Your task to perform on an android device: turn on improve location accuracy Image 0: 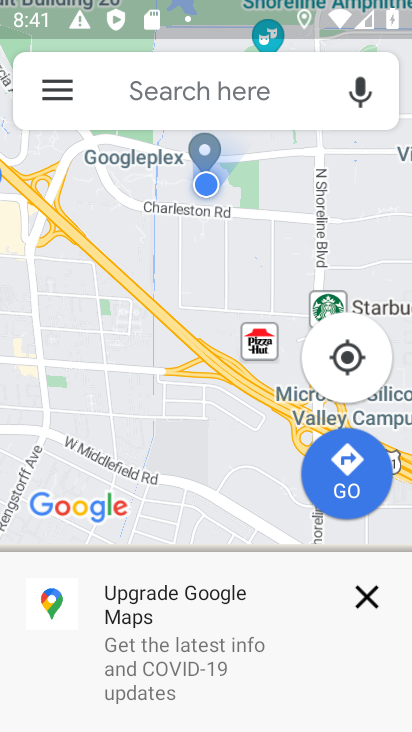
Step 0: press home button
Your task to perform on an android device: turn on improve location accuracy Image 1: 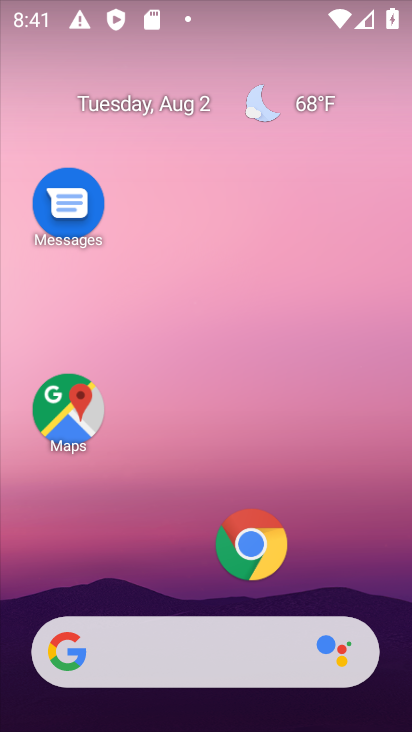
Step 1: drag from (229, 545) to (160, 221)
Your task to perform on an android device: turn on improve location accuracy Image 2: 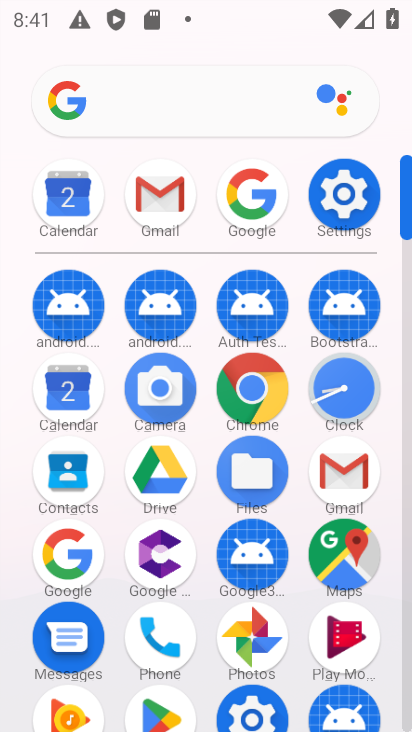
Step 2: click (336, 199)
Your task to perform on an android device: turn on improve location accuracy Image 3: 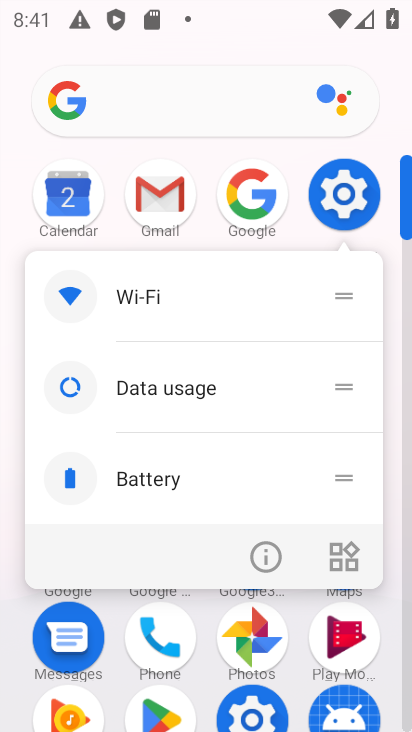
Step 3: click (340, 202)
Your task to perform on an android device: turn on improve location accuracy Image 4: 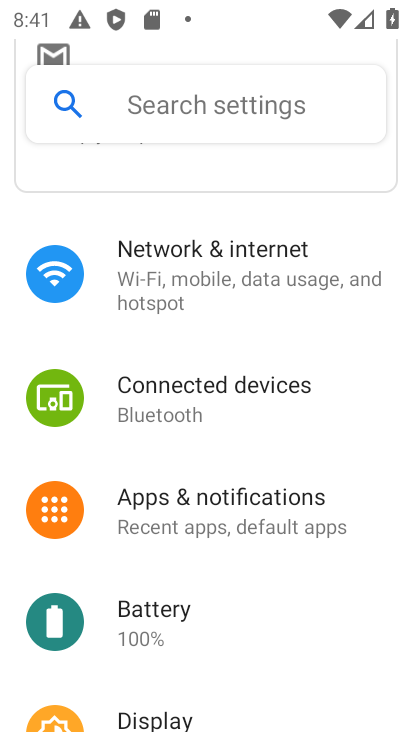
Step 4: drag from (167, 664) to (121, 267)
Your task to perform on an android device: turn on improve location accuracy Image 5: 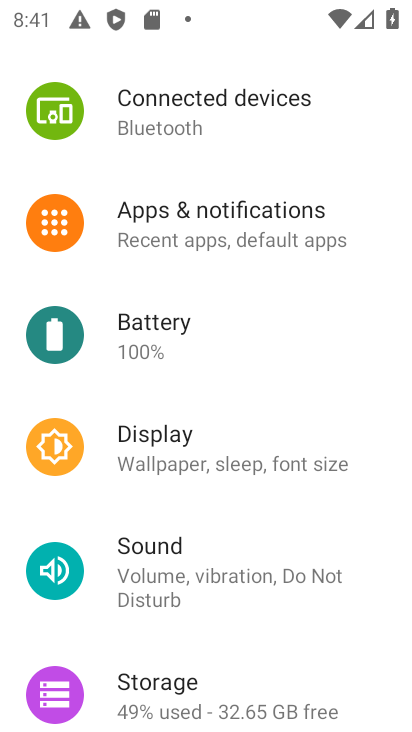
Step 5: drag from (218, 688) to (186, 328)
Your task to perform on an android device: turn on improve location accuracy Image 6: 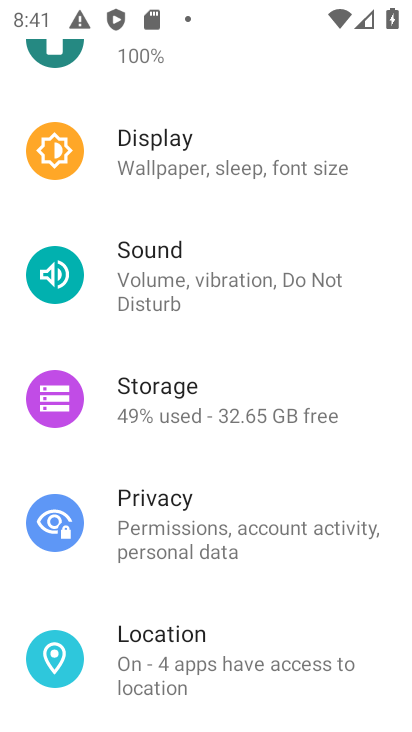
Step 6: click (168, 654)
Your task to perform on an android device: turn on improve location accuracy Image 7: 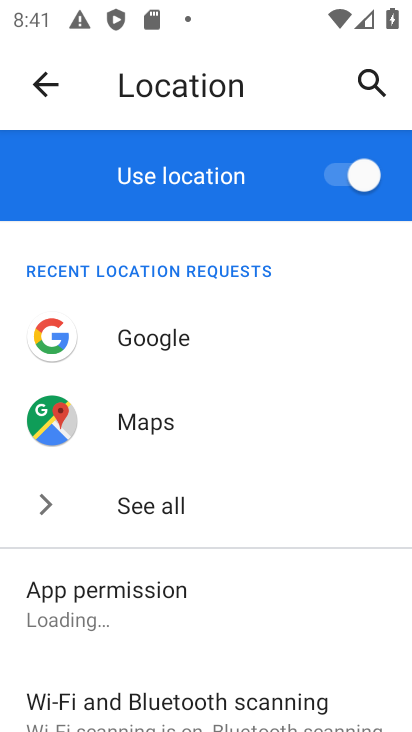
Step 7: drag from (111, 686) to (108, 265)
Your task to perform on an android device: turn on improve location accuracy Image 8: 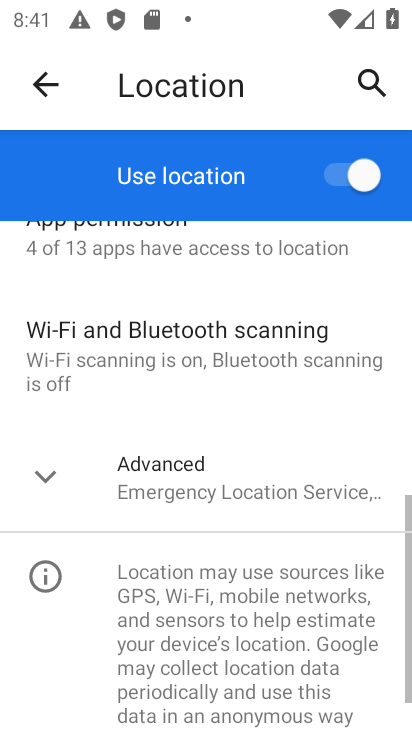
Step 8: click (151, 493)
Your task to perform on an android device: turn on improve location accuracy Image 9: 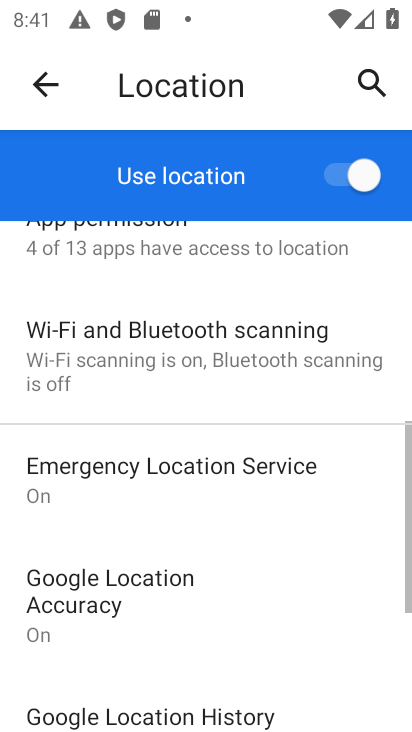
Step 9: drag from (174, 639) to (170, 213)
Your task to perform on an android device: turn on improve location accuracy Image 10: 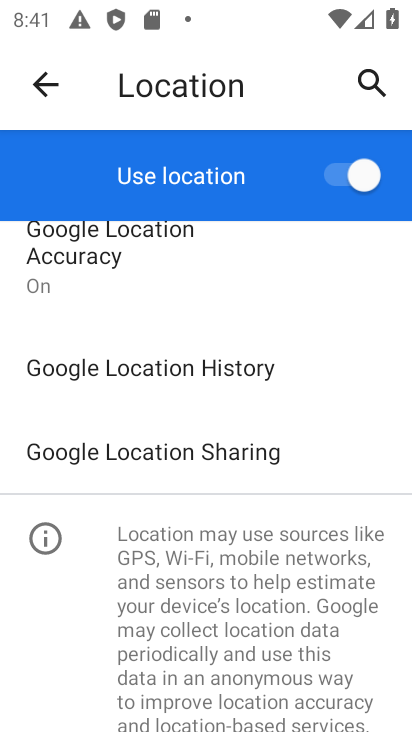
Step 10: click (92, 249)
Your task to perform on an android device: turn on improve location accuracy Image 11: 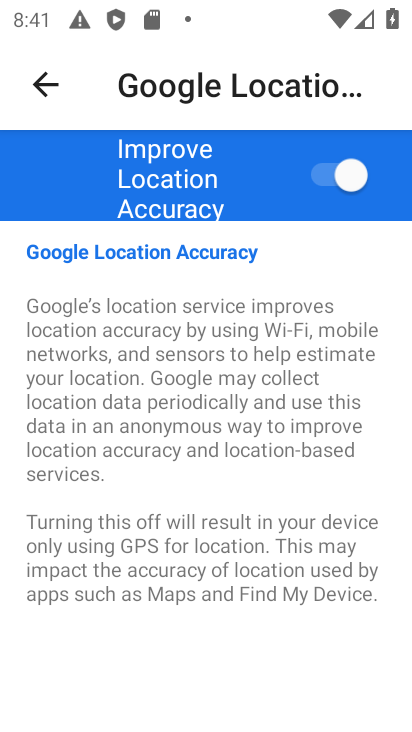
Step 11: task complete